Your task to perform on an android device: choose inbox layout in the gmail app Image 0: 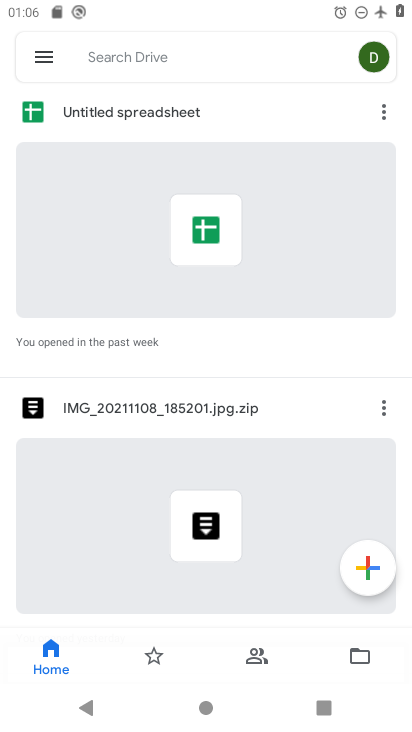
Step 0: press home button
Your task to perform on an android device: choose inbox layout in the gmail app Image 1: 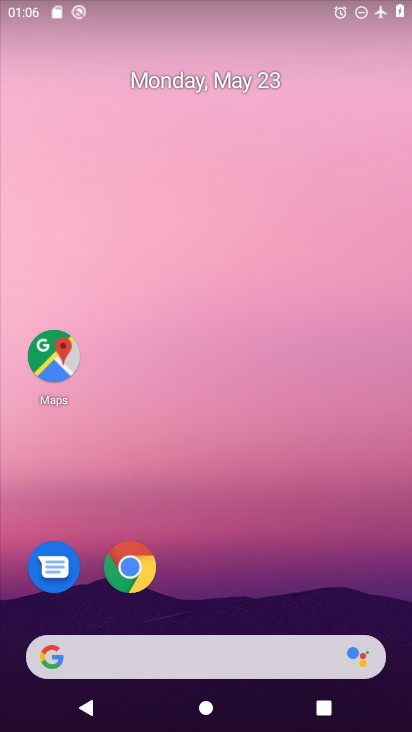
Step 1: drag from (238, 615) to (218, 219)
Your task to perform on an android device: choose inbox layout in the gmail app Image 2: 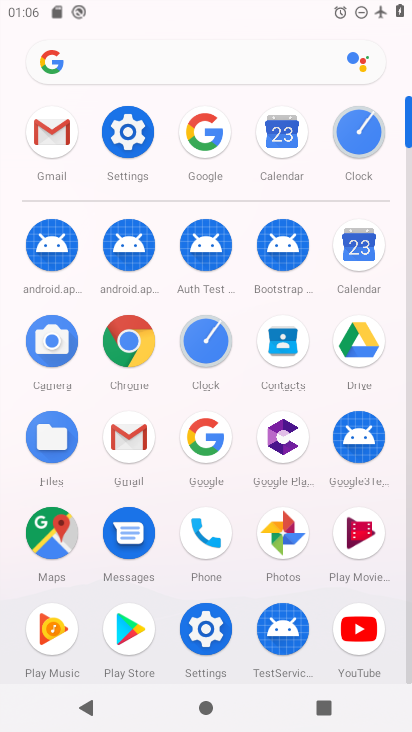
Step 2: click (52, 127)
Your task to perform on an android device: choose inbox layout in the gmail app Image 3: 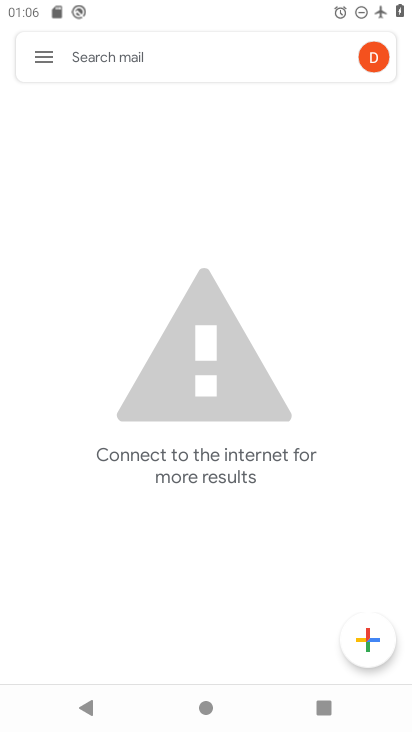
Step 3: click (44, 52)
Your task to perform on an android device: choose inbox layout in the gmail app Image 4: 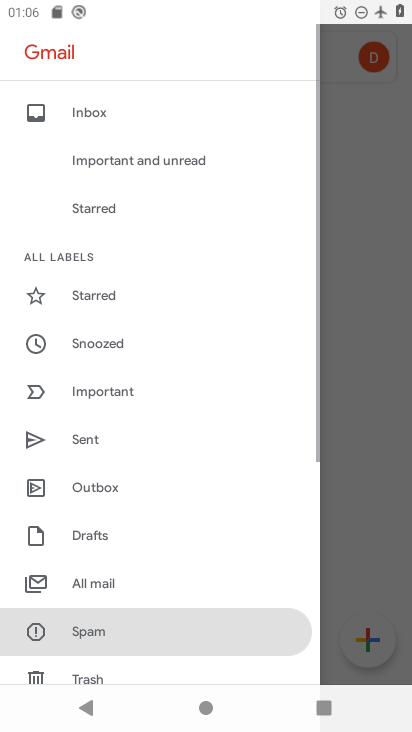
Step 4: drag from (132, 588) to (164, 258)
Your task to perform on an android device: choose inbox layout in the gmail app Image 5: 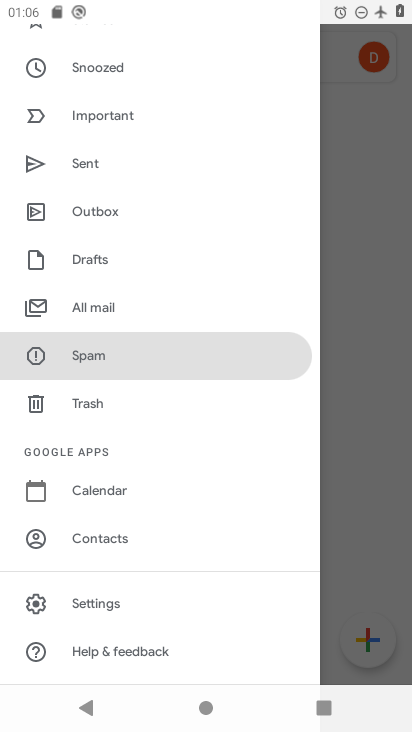
Step 5: click (122, 595)
Your task to perform on an android device: choose inbox layout in the gmail app Image 6: 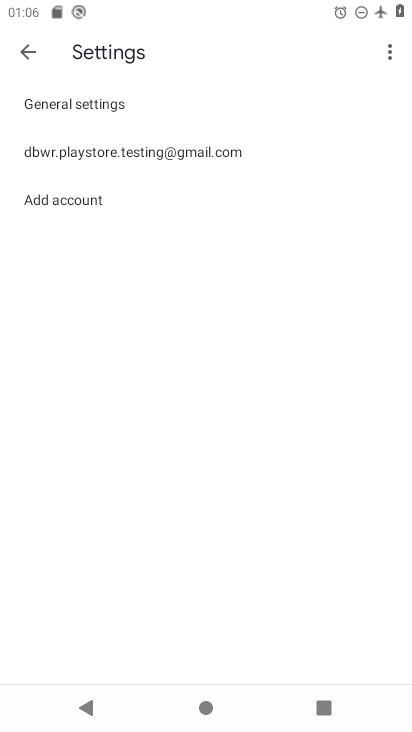
Step 6: click (167, 153)
Your task to perform on an android device: choose inbox layout in the gmail app Image 7: 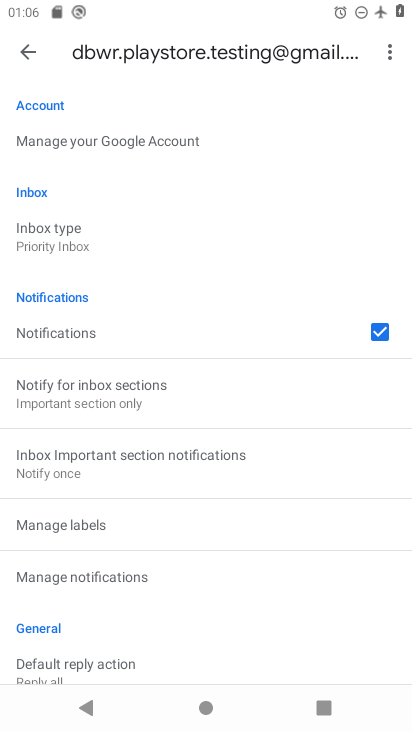
Step 7: click (117, 232)
Your task to perform on an android device: choose inbox layout in the gmail app Image 8: 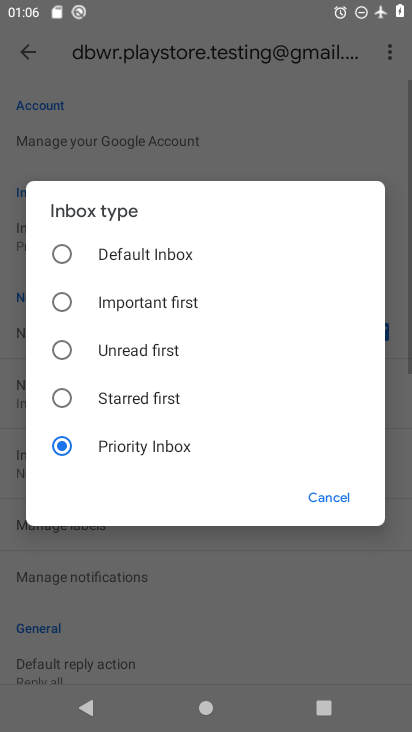
Step 8: click (122, 251)
Your task to perform on an android device: choose inbox layout in the gmail app Image 9: 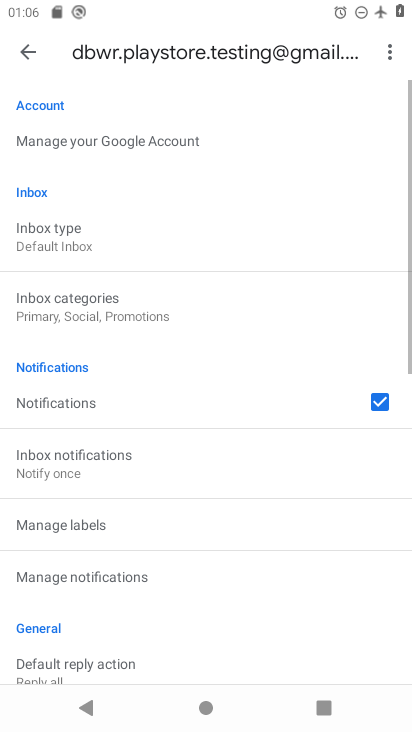
Step 9: task complete